Your task to perform on an android device: View the shopping cart on walmart. Search for apple airpods pro on walmart, select the first entry, and add it to the cart. Image 0: 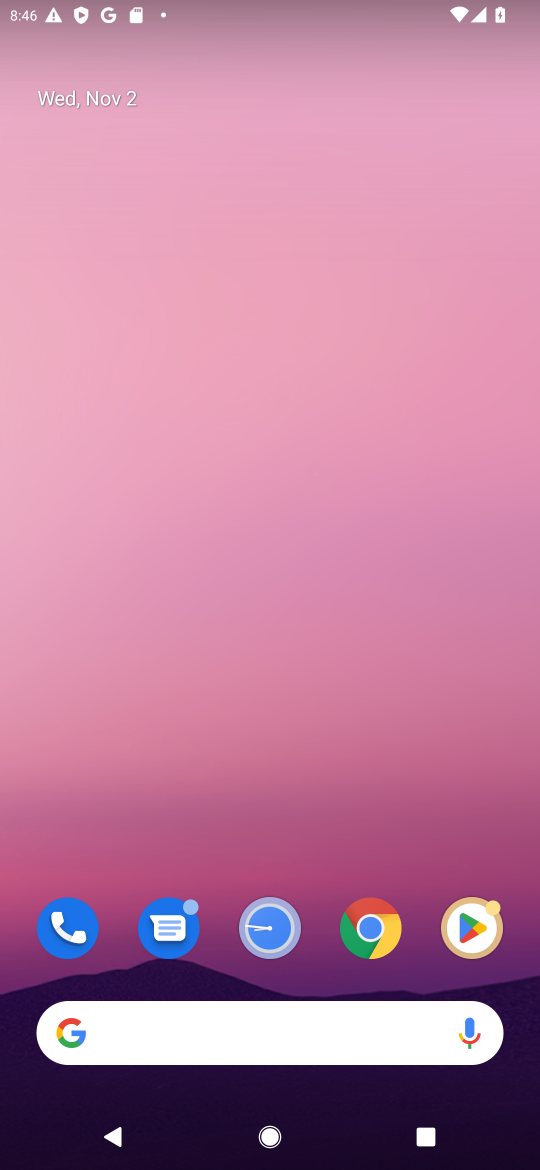
Step 0: click (375, 930)
Your task to perform on an android device: View the shopping cart on walmart. Search for apple airpods pro on walmart, select the first entry, and add it to the cart. Image 1: 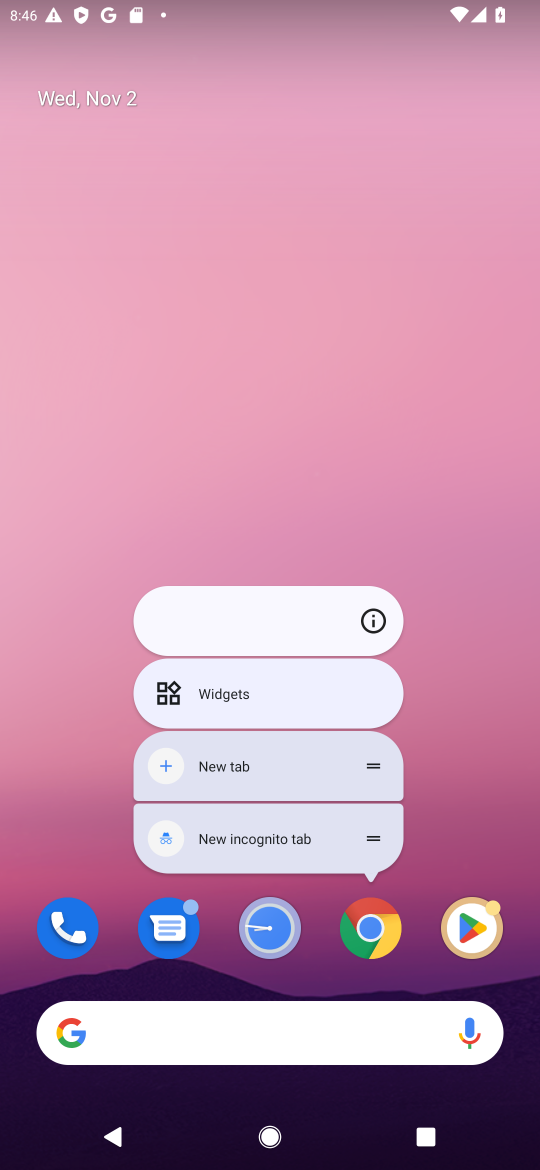
Step 1: click (375, 938)
Your task to perform on an android device: View the shopping cart on walmart. Search for apple airpods pro on walmart, select the first entry, and add it to the cart. Image 2: 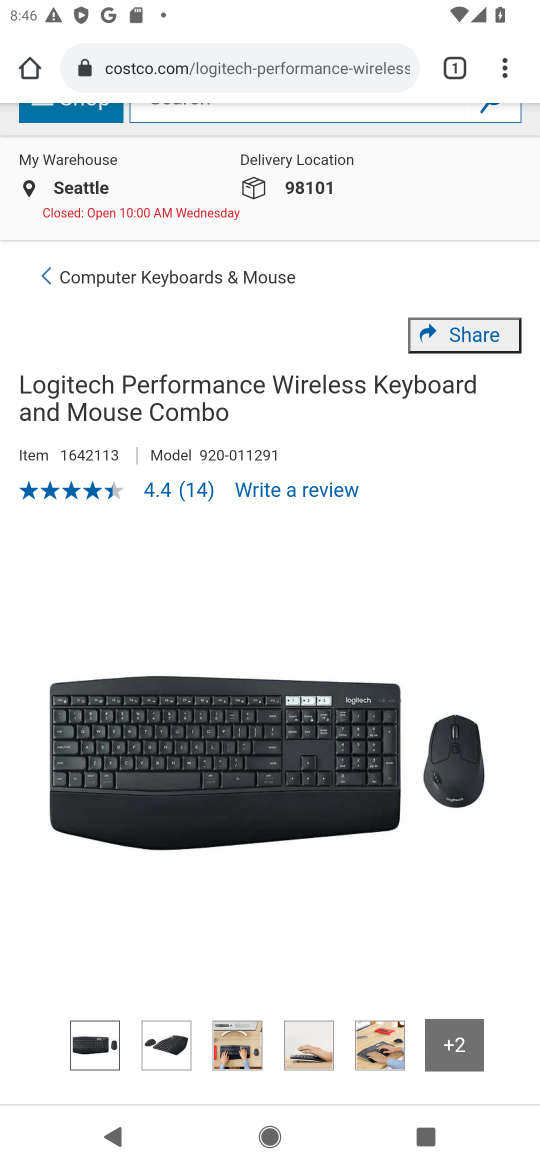
Step 2: click (245, 72)
Your task to perform on an android device: View the shopping cart on walmart. Search for apple airpods pro on walmart, select the first entry, and add it to the cart. Image 3: 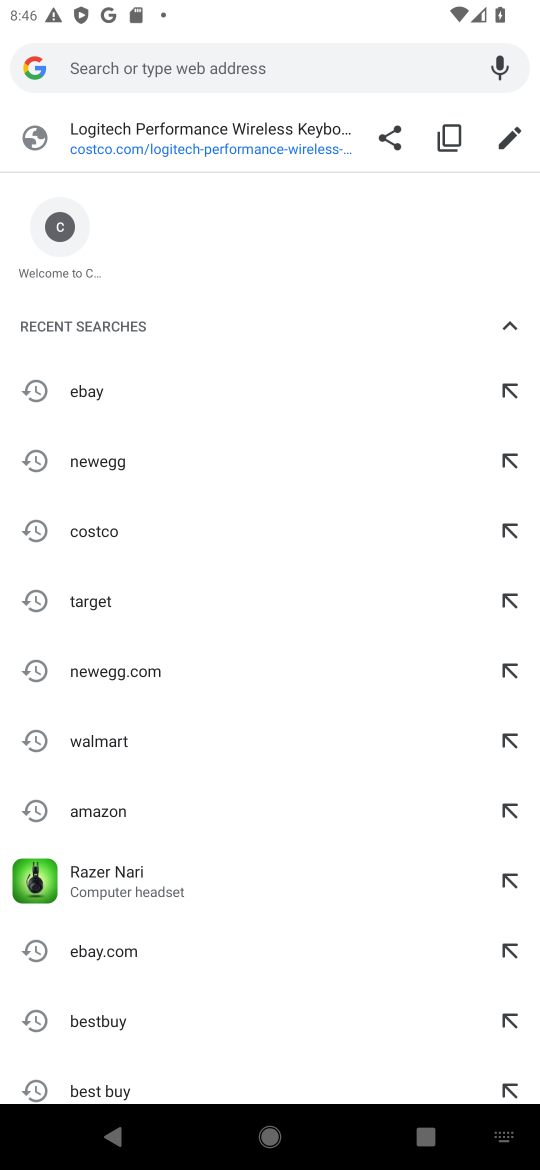
Step 3: type "walmart"
Your task to perform on an android device: View the shopping cart on walmart. Search for apple airpods pro on walmart, select the first entry, and add it to the cart. Image 4: 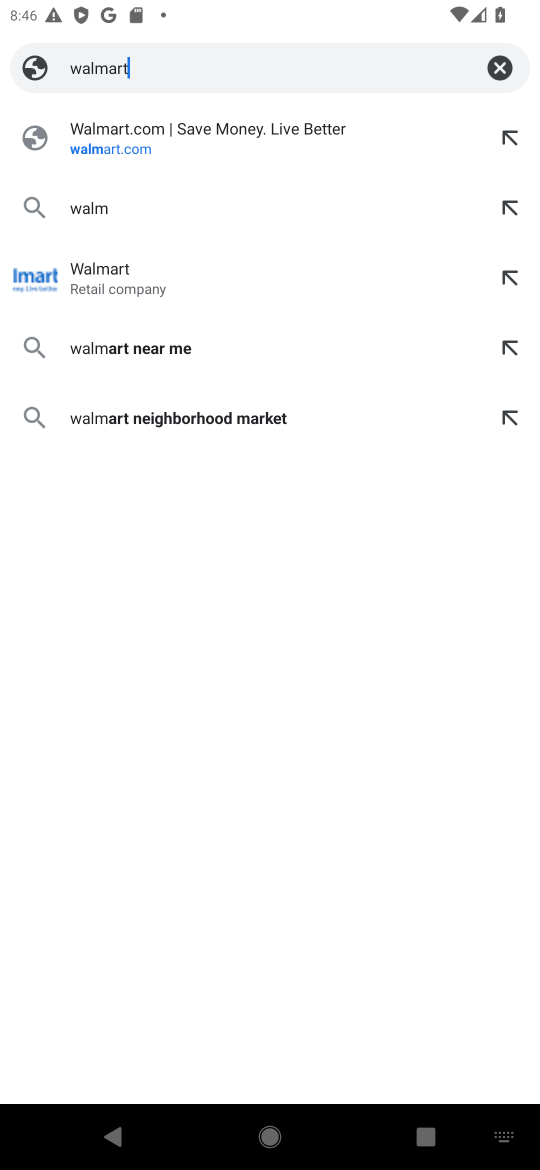
Step 4: type ""
Your task to perform on an android device: View the shopping cart on walmart. Search for apple airpods pro on walmart, select the first entry, and add it to the cart. Image 5: 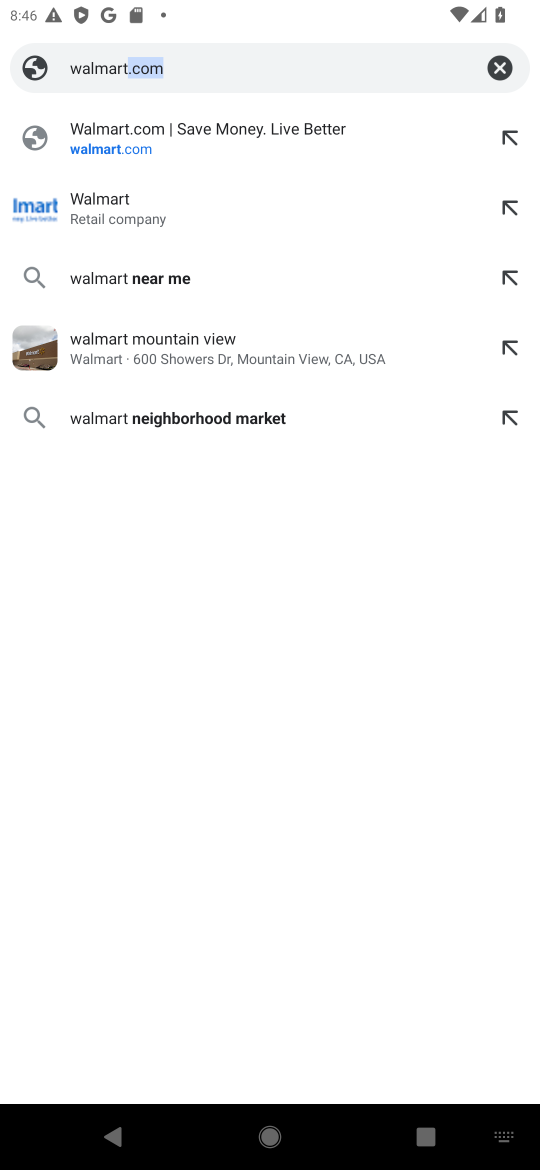
Step 5: click (167, 139)
Your task to perform on an android device: View the shopping cart on walmart. Search for apple airpods pro on walmart, select the first entry, and add it to the cart. Image 6: 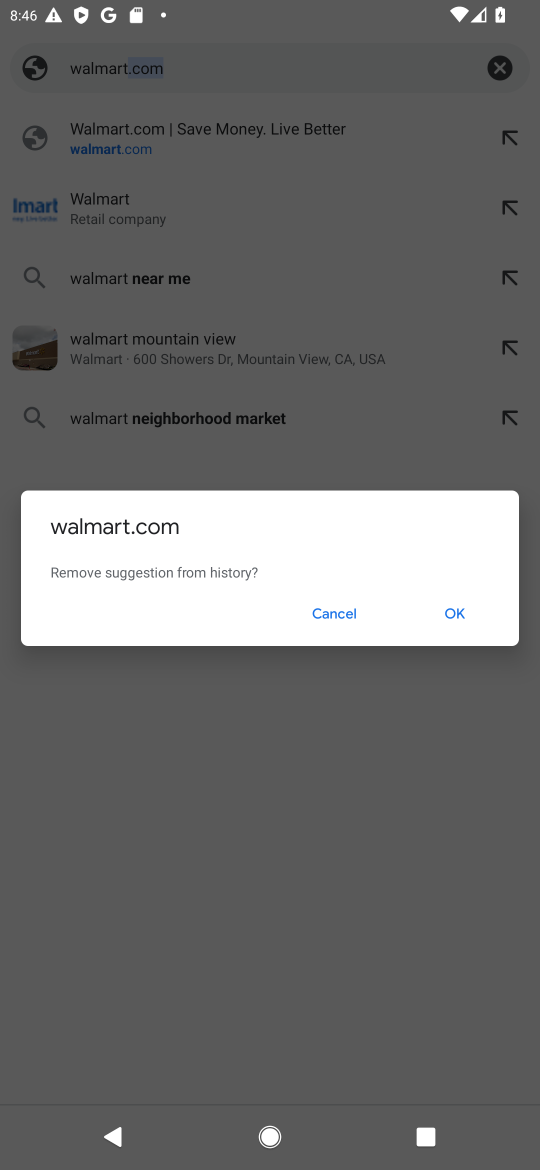
Step 6: click (465, 621)
Your task to perform on an android device: View the shopping cart on walmart. Search for apple airpods pro on walmart, select the first entry, and add it to the cart. Image 7: 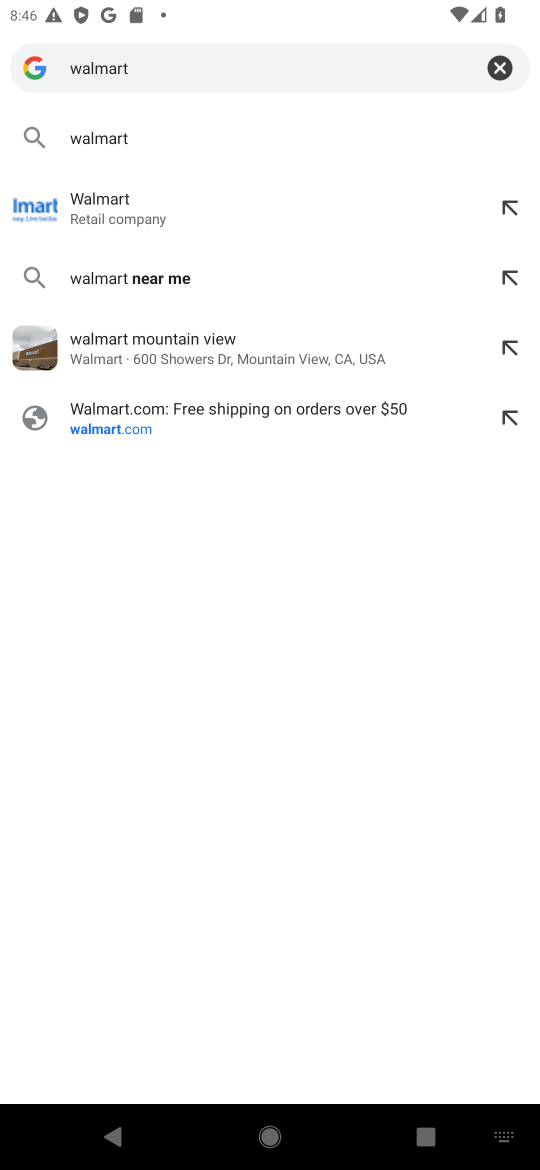
Step 7: click (139, 206)
Your task to perform on an android device: View the shopping cart on walmart. Search for apple airpods pro on walmart, select the first entry, and add it to the cart. Image 8: 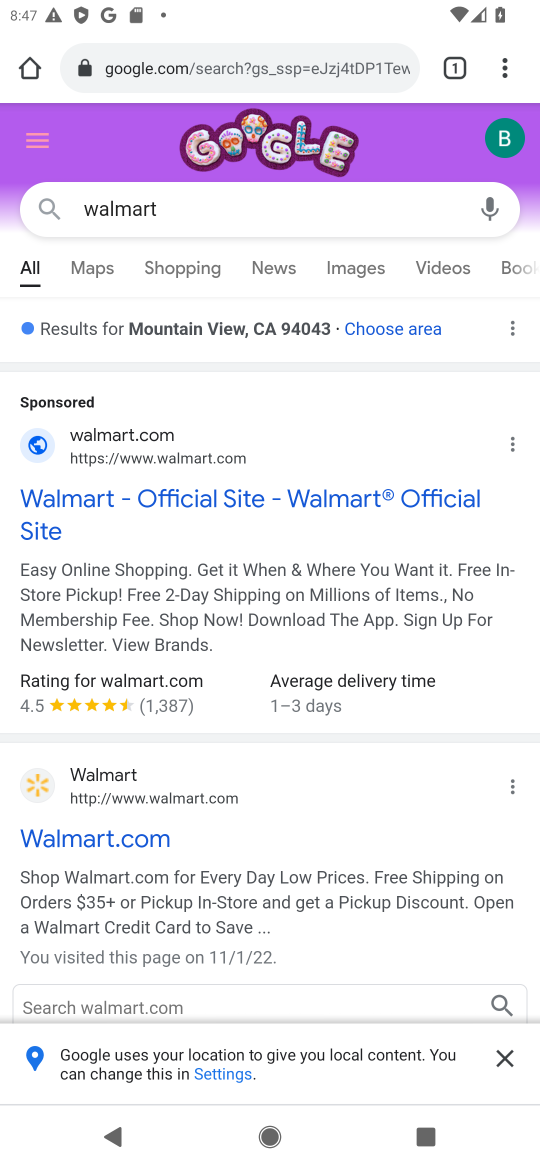
Step 8: click (160, 499)
Your task to perform on an android device: View the shopping cart on walmart. Search for apple airpods pro on walmart, select the first entry, and add it to the cart. Image 9: 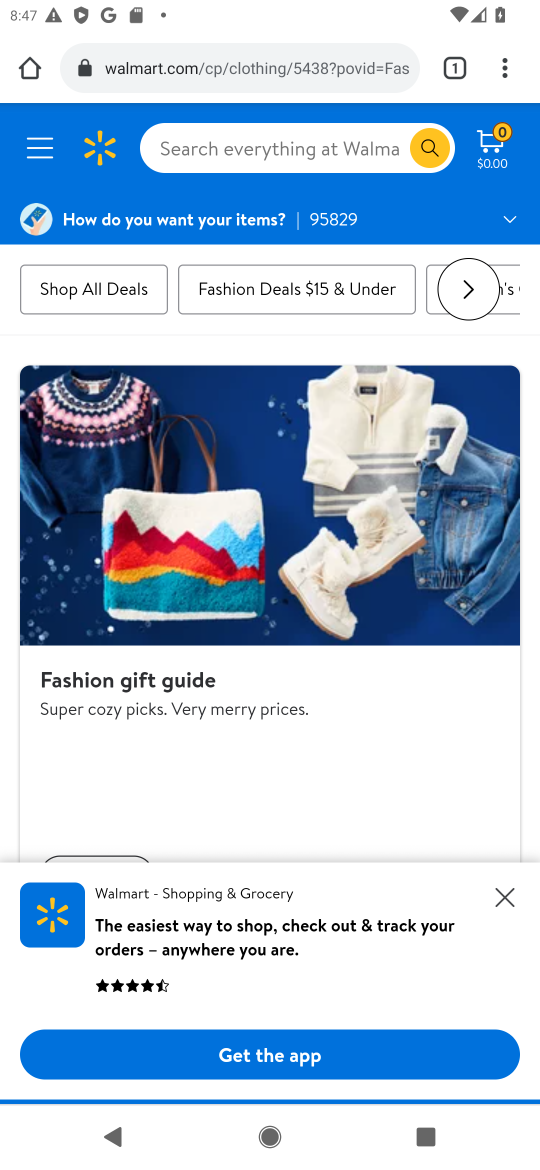
Step 9: click (261, 157)
Your task to perform on an android device: View the shopping cart on walmart. Search for apple airpods pro on walmart, select the first entry, and add it to the cart. Image 10: 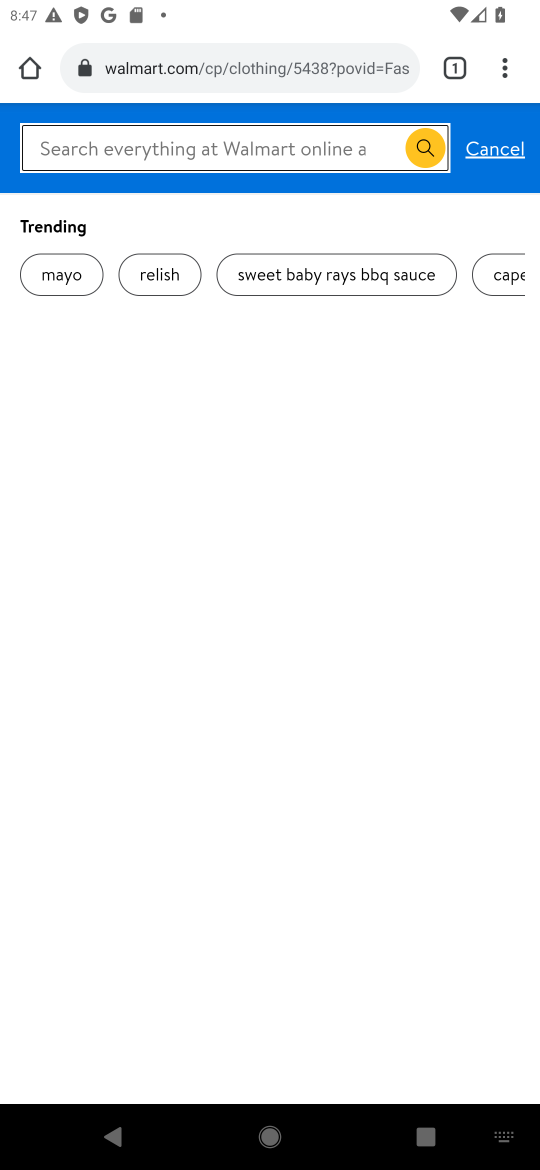
Step 10: type "apple airpods pro"
Your task to perform on an android device: View the shopping cart on walmart. Search for apple airpods pro on walmart, select the first entry, and add it to the cart. Image 11: 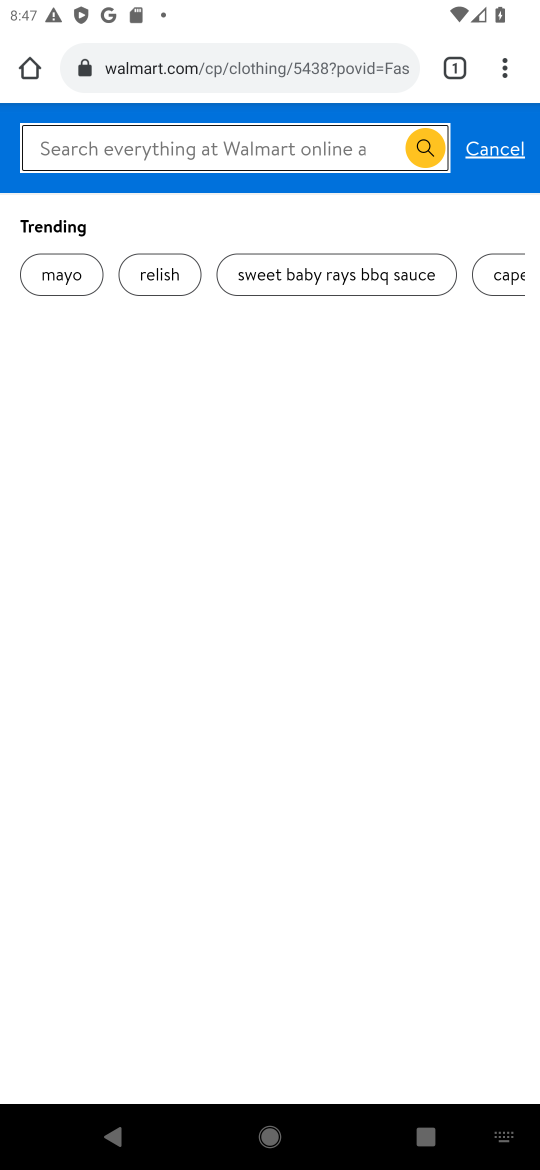
Step 11: type ""
Your task to perform on an android device: View the shopping cart on walmart. Search for apple airpods pro on walmart, select the first entry, and add it to the cart. Image 12: 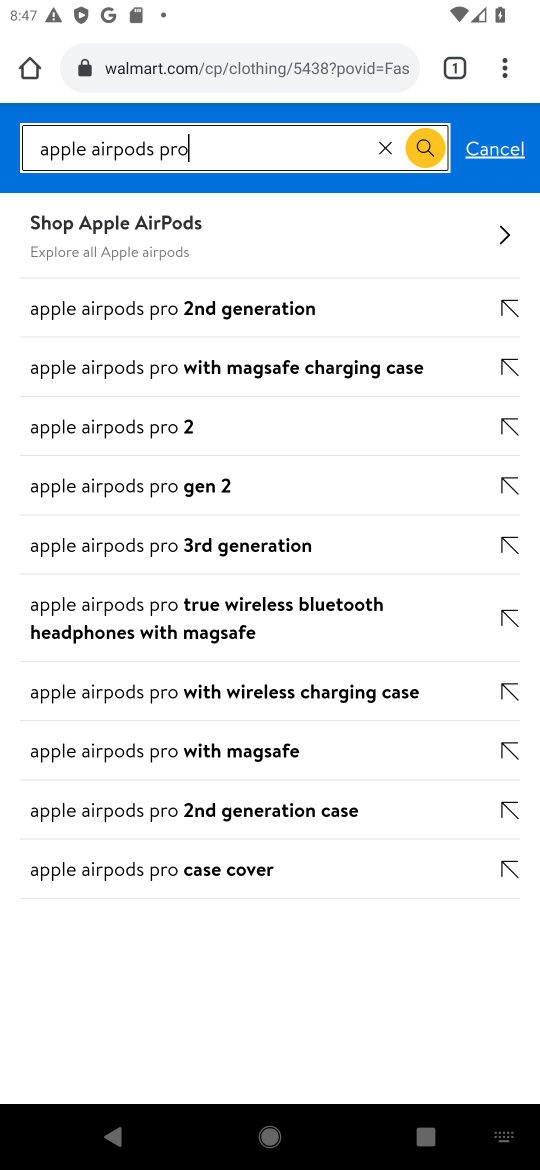
Step 12: click (97, 212)
Your task to perform on an android device: View the shopping cart on walmart. Search for apple airpods pro on walmart, select the first entry, and add it to the cart. Image 13: 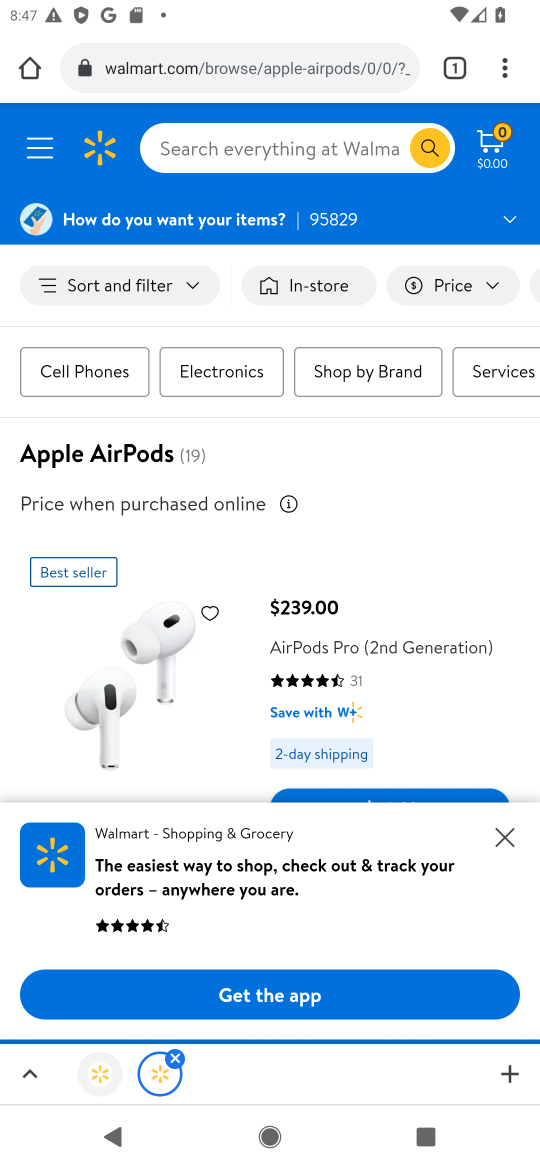
Step 13: click (514, 828)
Your task to perform on an android device: View the shopping cart on walmart. Search for apple airpods pro on walmart, select the first entry, and add it to the cart. Image 14: 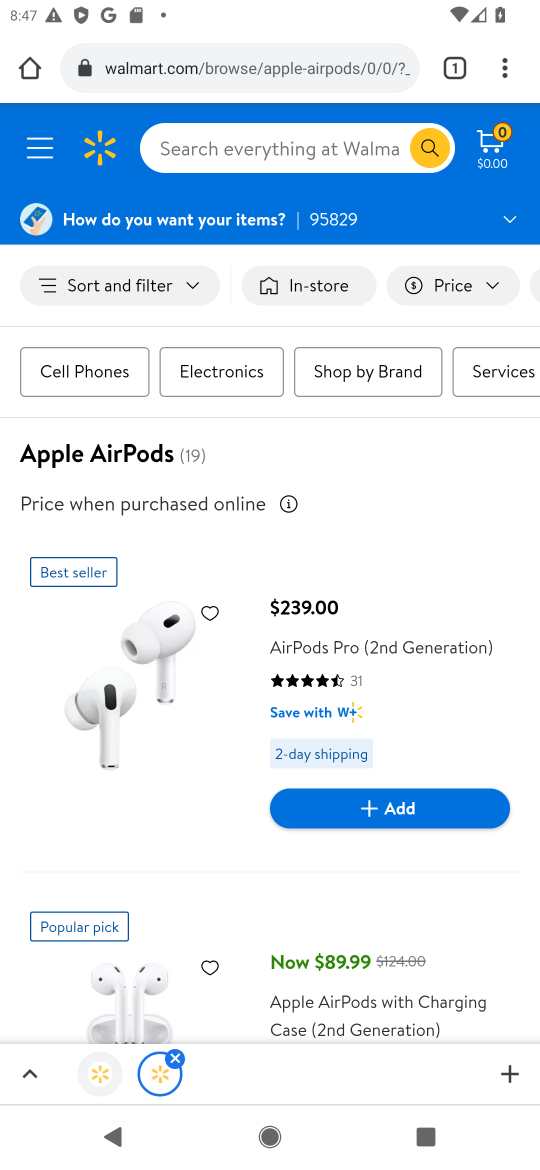
Step 14: click (454, 814)
Your task to perform on an android device: View the shopping cart on walmart. Search for apple airpods pro on walmart, select the first entry, and add it to the cart. Image 15: 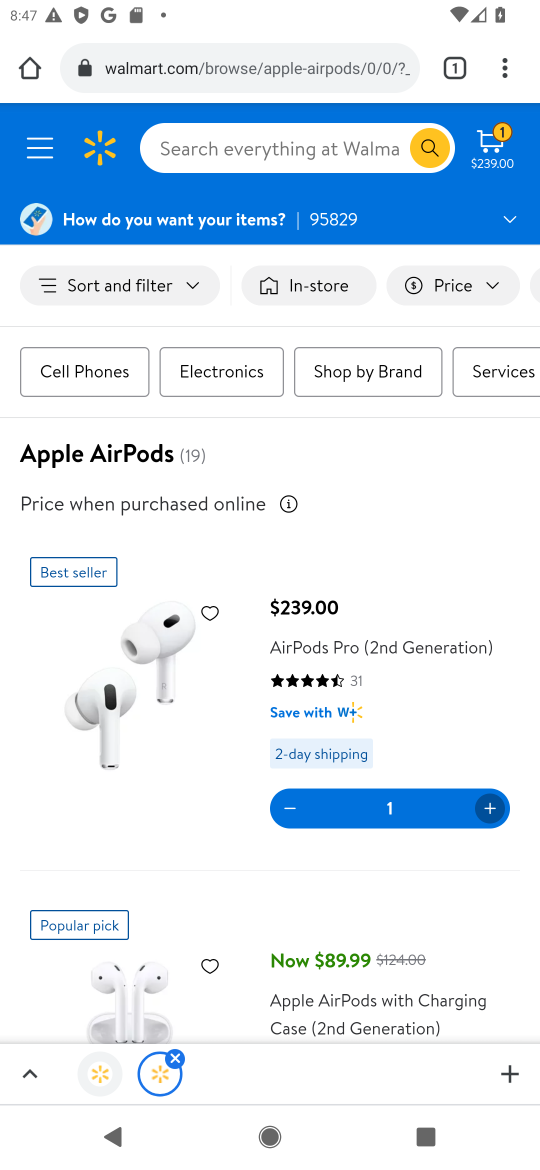
Step 15: click (501, 167)
Your task to perform on an android device: View the shopping cart on walmart. Search for apple airpods pro on walmart, select the first entry, and add it to the cart. Image 16: 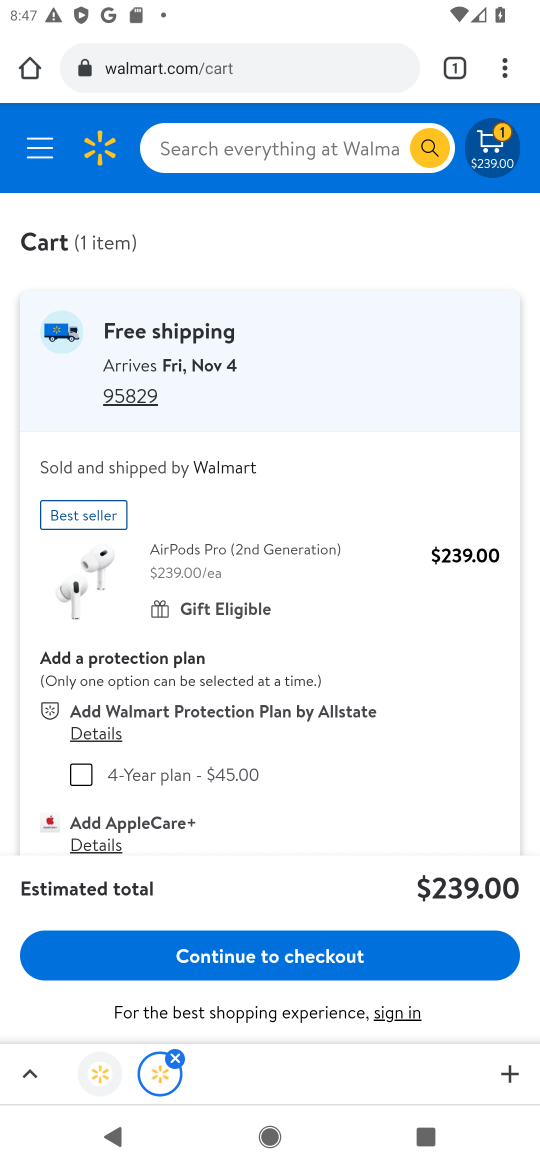
Step 16: drag from (371, 711) to (370, 392)
Your task to perform on an android device: View the shopping cart on walmart. Search for apple airpods pro on walmart, select the first entry, and add it to the cart. Image 17: 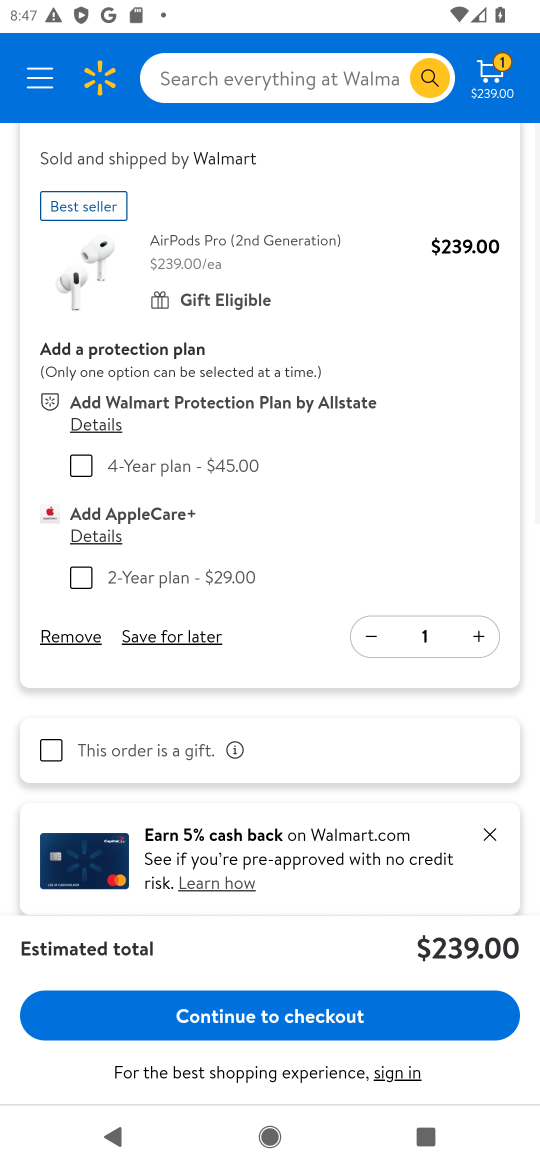
Step 17: click (323, 878)
Your task to perform on an android device: View the shopping cart on walmart. Search for apple airpods pro on walmart, select the first entry, and add it to the cart. Image 18: 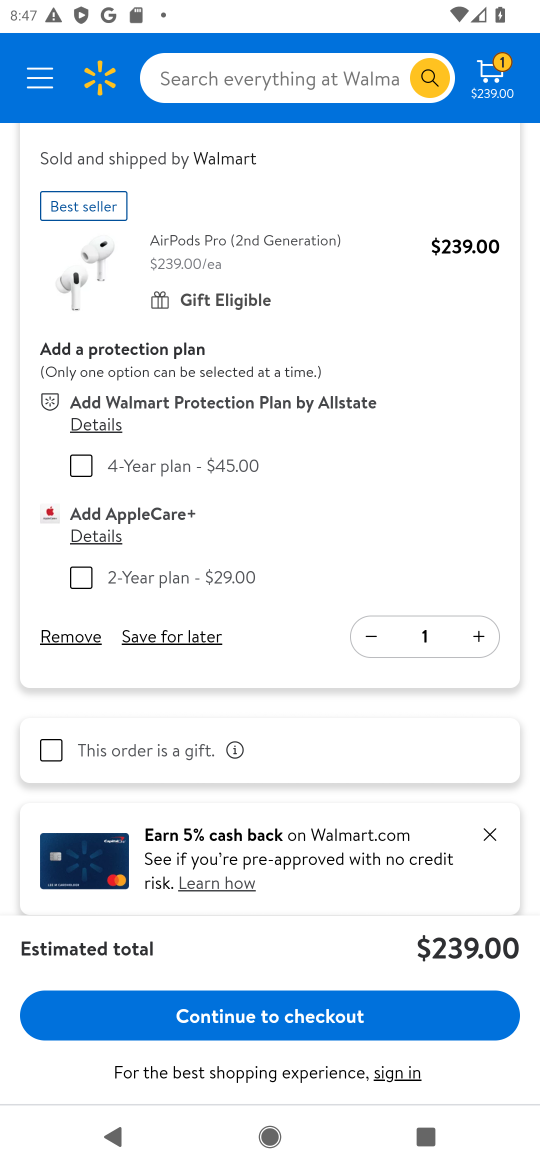
Step 18: click (489, 830)
Your task to perform on an android device: View the shopping cart on walmart. Search for apple airpods pro on walmart, select the first entry, and add it to the cart. Image 19: 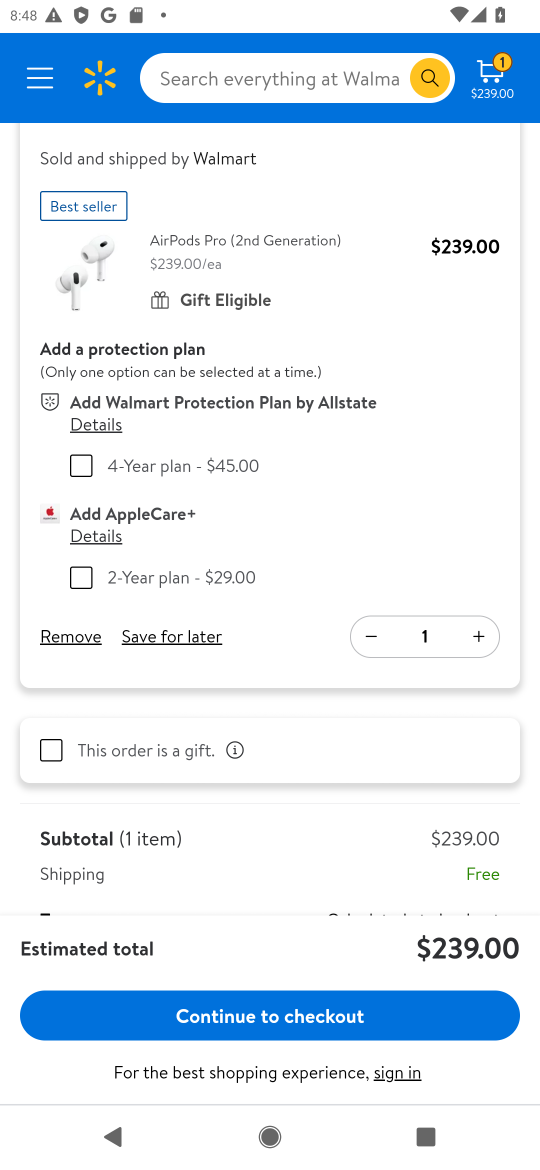
Step 19: click (270, 1017)
Your task to perform on an android device: View the shopping cart on walmart. Search for apple airpods pro on walmart, select the first entry, and add it to the cart. Image 20: 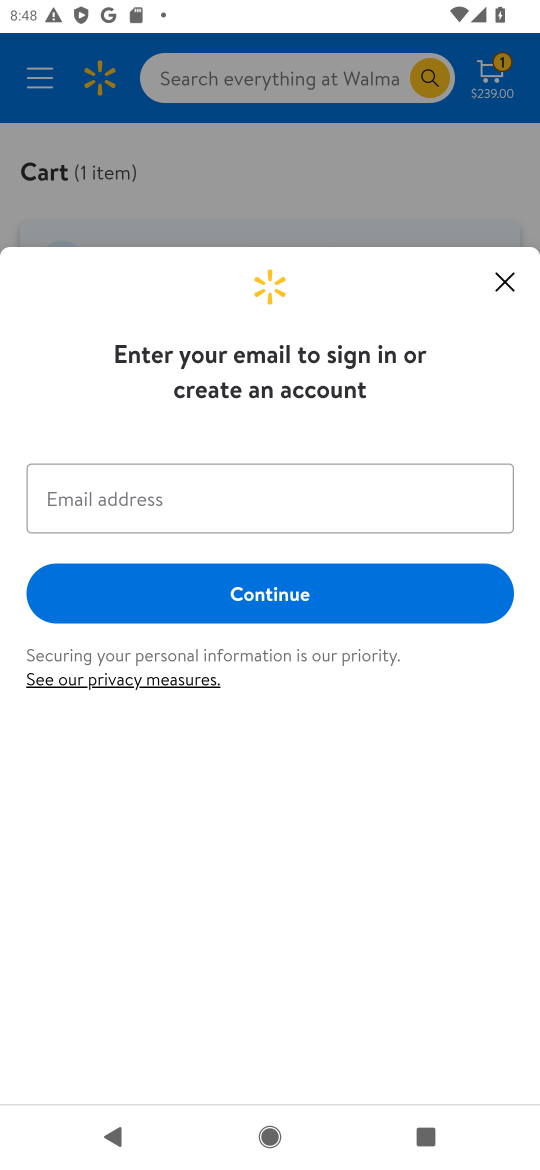
Step 20: click (499, 295)
Your task to perform on an android device: View the shopping cart on walmart. Search for apple airpods pro on walmart, select the first entry, and add it to the cart. Image 21: 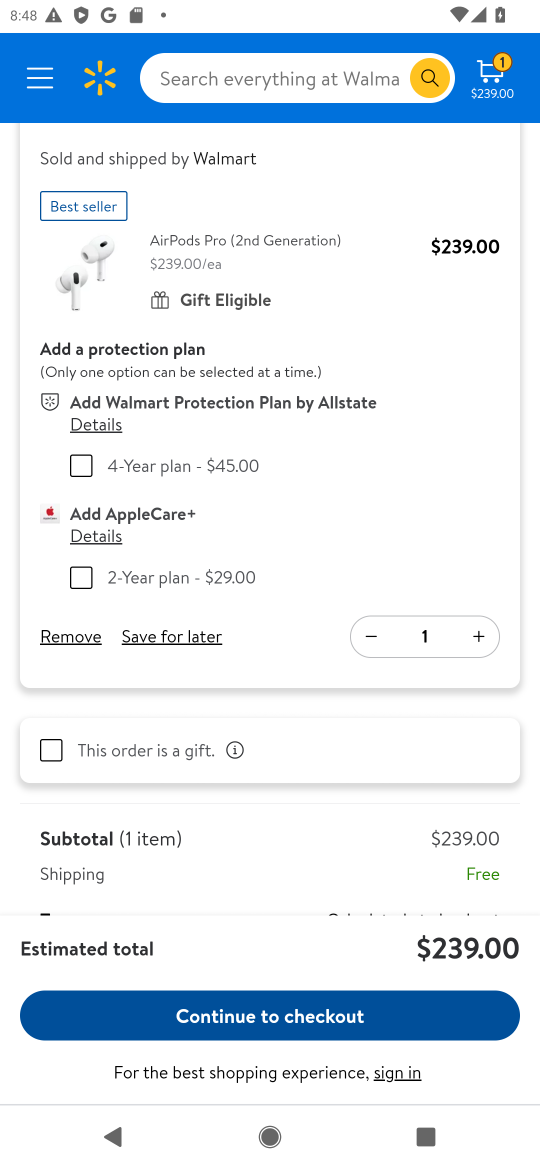
Step 21: click (290, 1031)
Your task to perform on an android device: View the shopping cart on walmart. Search for apple airpods pro on walmart, select the first entry, and add it to the cart. Image 22: 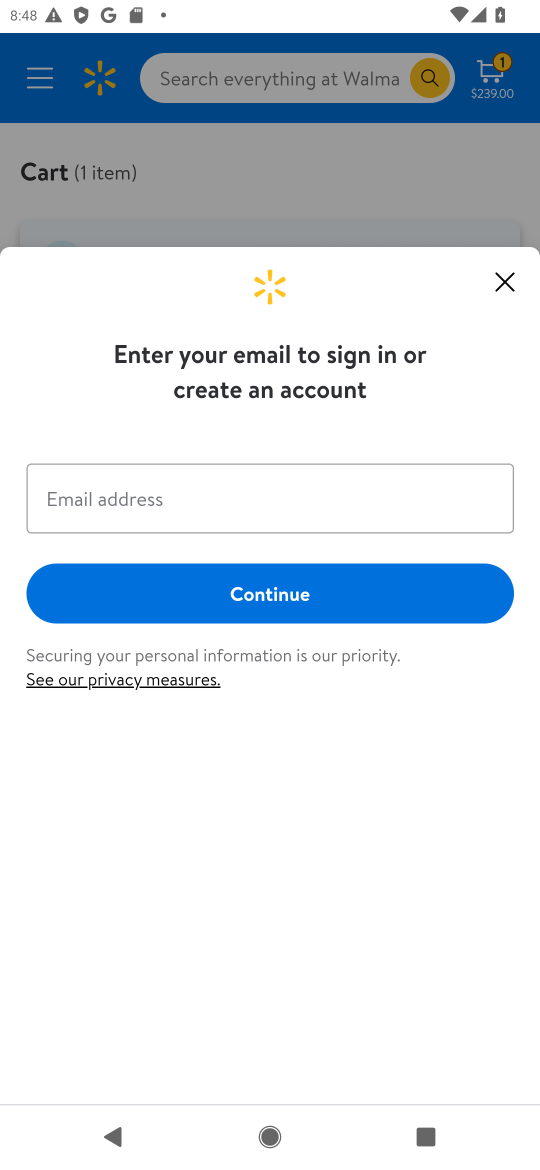
Step 22: click (485, 287)
Your task to perform on an android device: View the shopping cart on walmart. Search for apple airpods pro on walmart, select the first entry, and add it to the cart. Image 23: 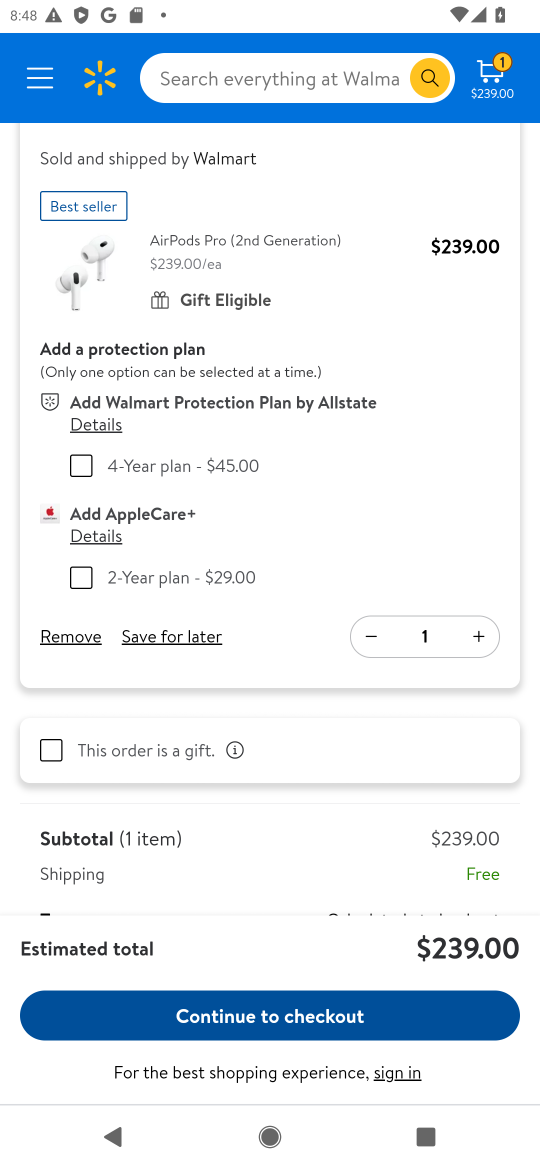
Step 23: drag from (307, 950) to (345, 337)
Your task to perform on an android device: View the shopping cart on walmart. Search for apple airpods pro on walmart, select the first entry, and add it to the cart. Image 24: 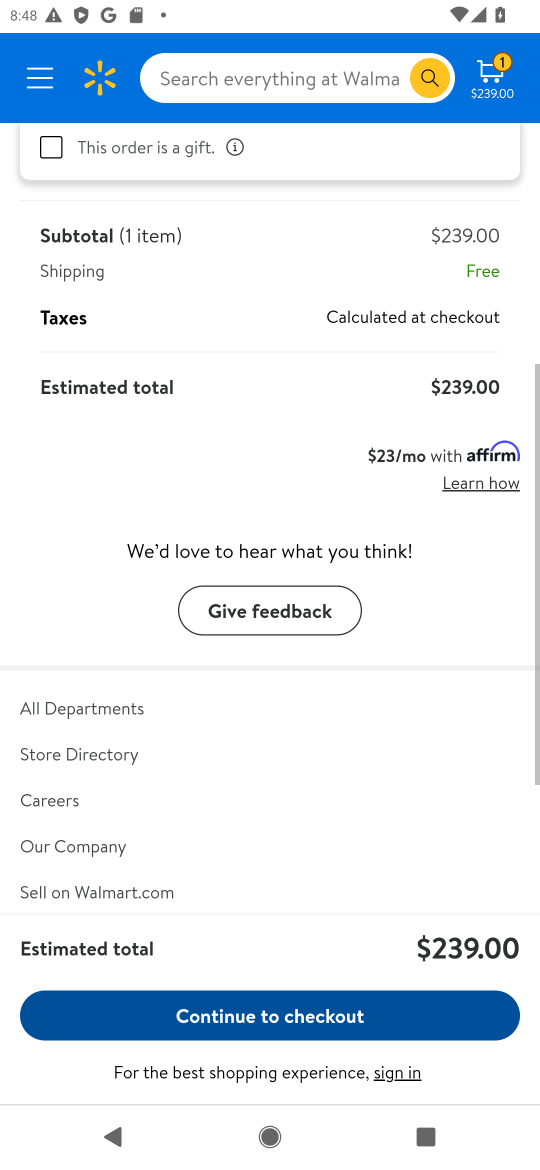
Step 24: click (238, 1007)
Your task to perform on an android device: View the shopping cart on walmart. Search for apple airpods pro on walmart, select the first entry, and add it to the cart. Image 25: 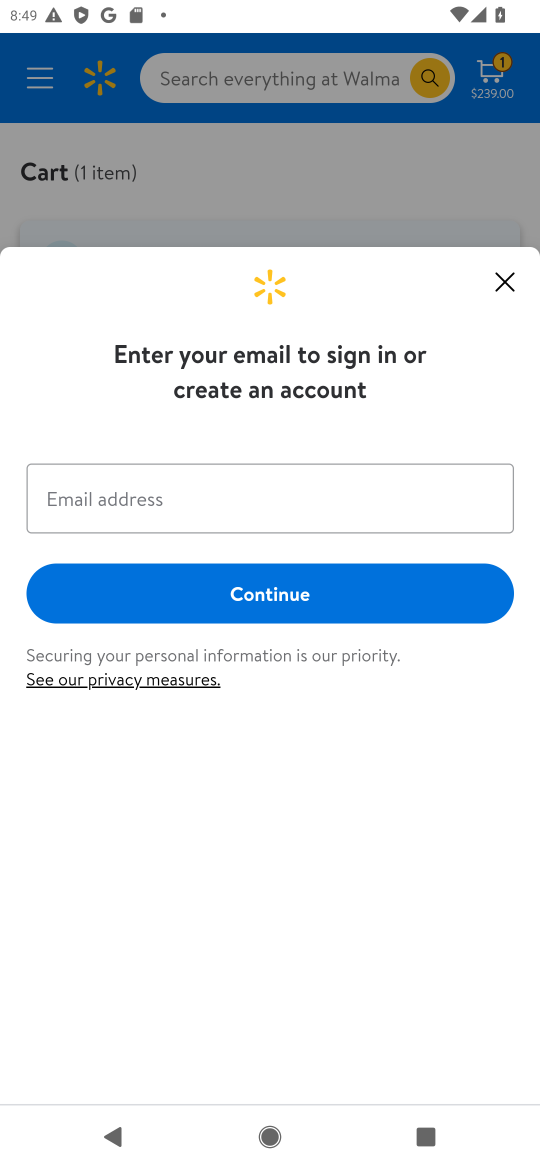
Step 25: click (496, 274)
Your task to perform on an android device: View the shopping cart on walmart. Search for apple airpods pro on walmart, select the first entry, and add it to the cart. Image 26: 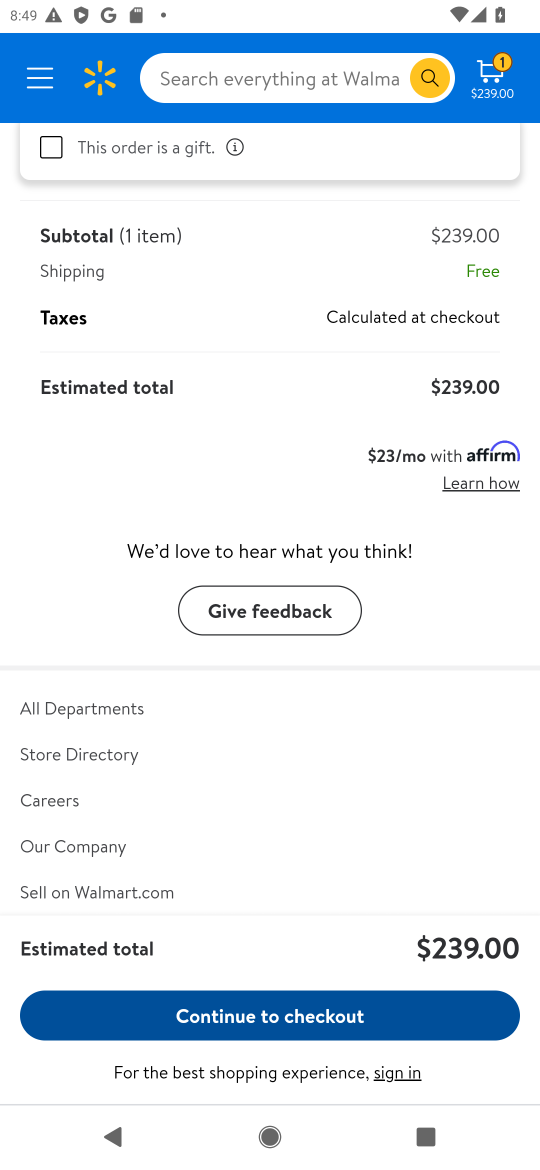
Step 26: drag from (327, 694) to (399, 218)
Your task to perform on an android device: View the shopping cart on walmart. Search for apple airpods pro on walmart, select the first entry, and add it to the cart. Image 27: 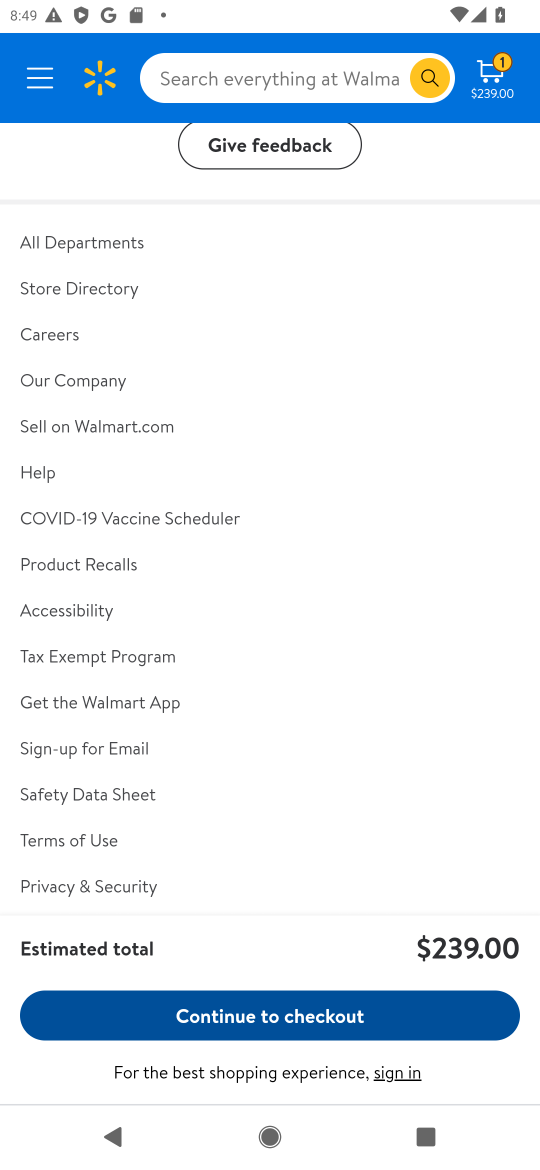
Step 27: drag from (327, 625) to (365, 256)
Your task to perform on an android device: View the shopping cart on walmart. Search for apple airpods pro on walmart, select the first entry, and add it to the cart. Image 28: 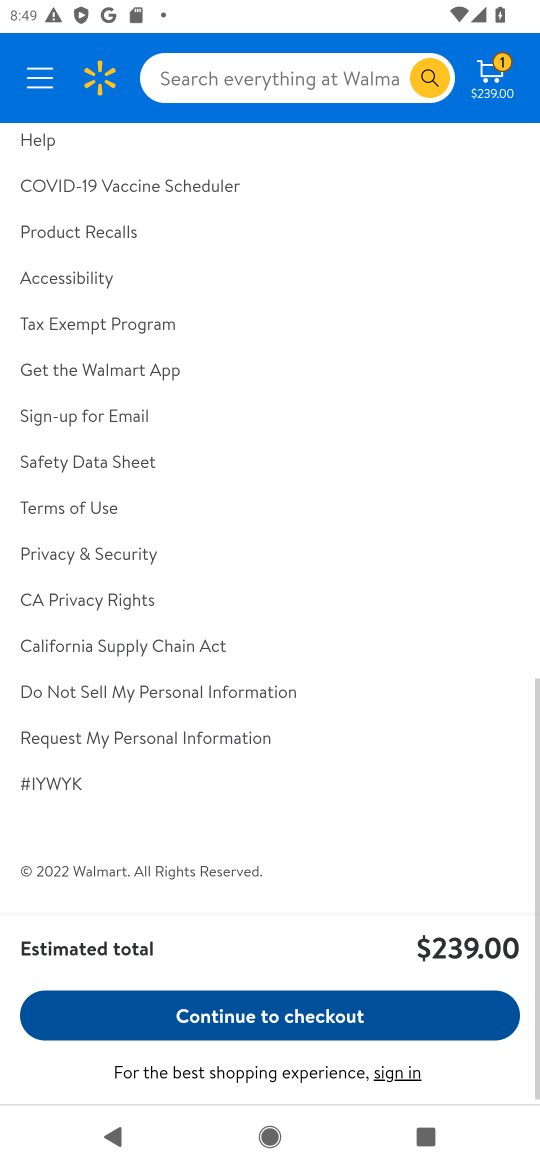
Step 28: click (265, 998)
Your task to perform on an android device: View the shopping cart on walmart. Search for apple airpods pro on walmart, select the first entry, and add it to the cart. Image 29: 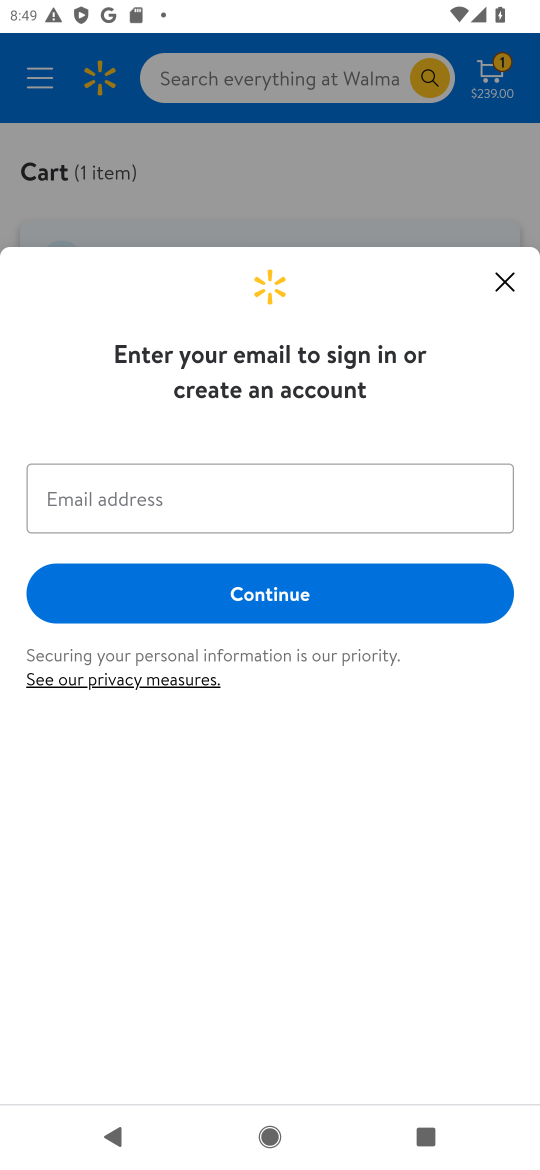
Step 29: click (510, 279)
Your task to perform on an android device: View the shopping cart on walmart. Search for apple airpods pro on walmart, select the first entry, and add it to the cart. Image 30: 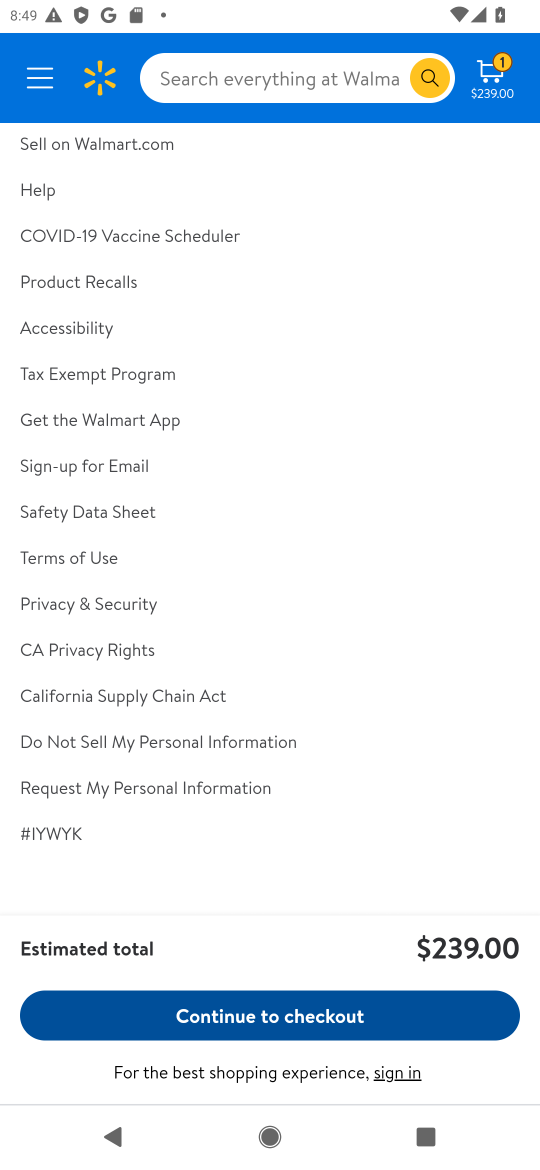
Step 30: drag from (477, 431) to (455, 845)
Your task to perform on an android device: View the shopping cart on walmart. Search for apple airpods pro on walmart, select the first entry, and add it to the cart. Image 31: 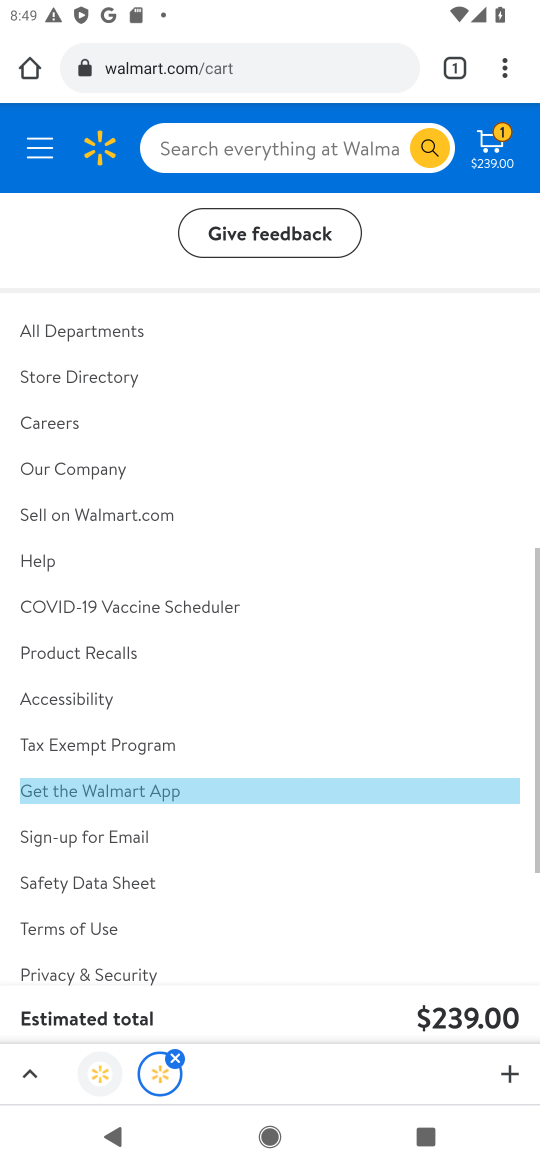
Step 31: drag from (381, 528) to (346, 845)
Your task to perform on an android device: View the shopping cart on walmart. Search for apple airpods pro on walmart, select the first entry, and add it to the cart. Image 32: 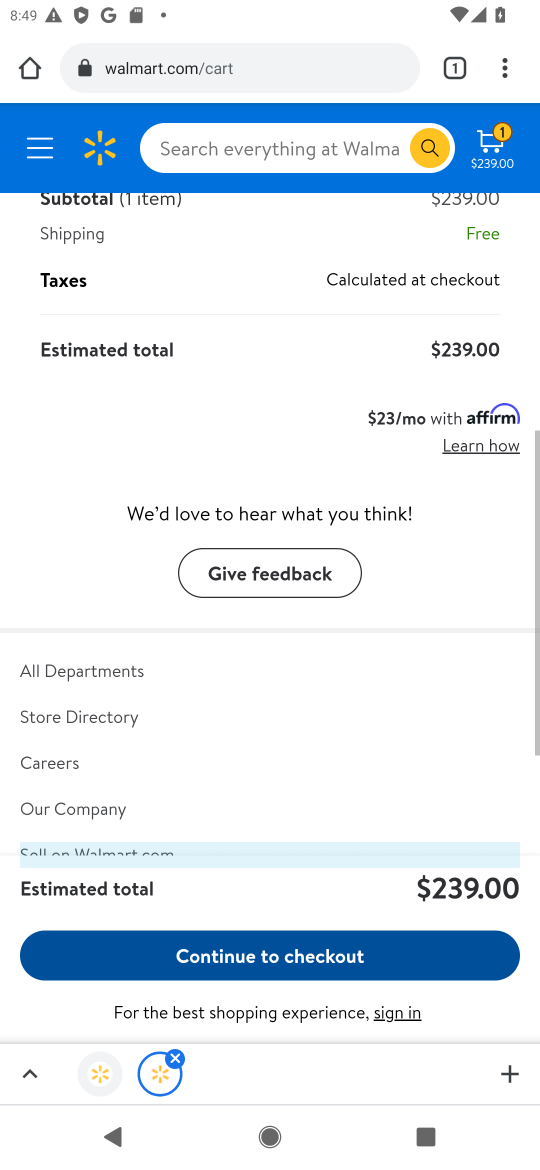
Step 32: drag from (347, 400) to (333, 833)
Your task to perform on an android device: View the shopping cart on walmart. Search for apple airpods pro on walmart, select the first entry, and add it to the cart. Image 33: 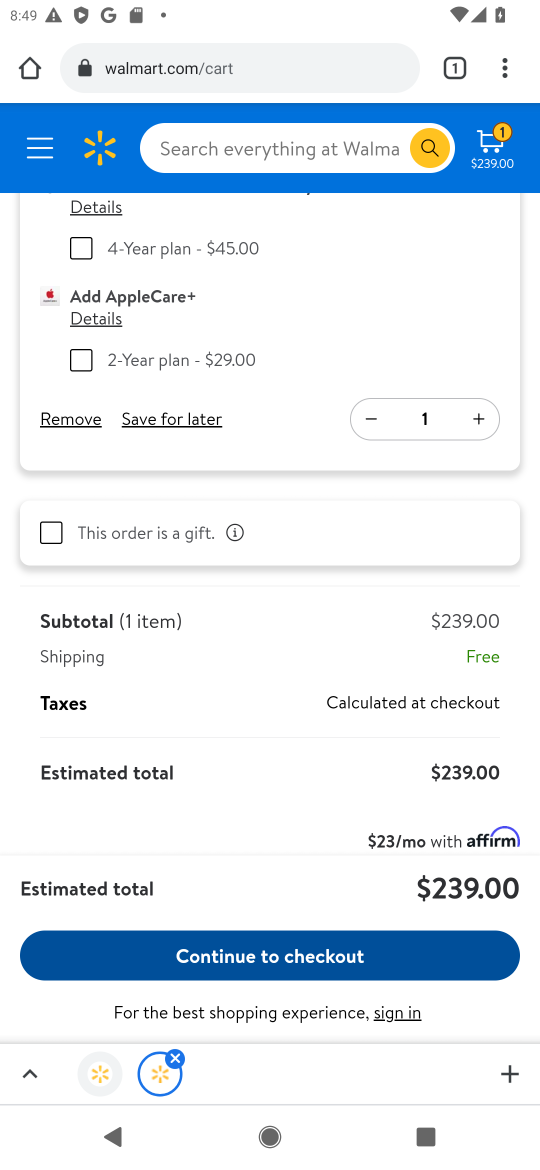
Step 33: drag from (450, 335) to (456, 965)
Your task to perform on an android device: View the shopping cart on walmart. Search for apple airpods pro on walmart, select the first entry, and add it to the cart. Image 34: 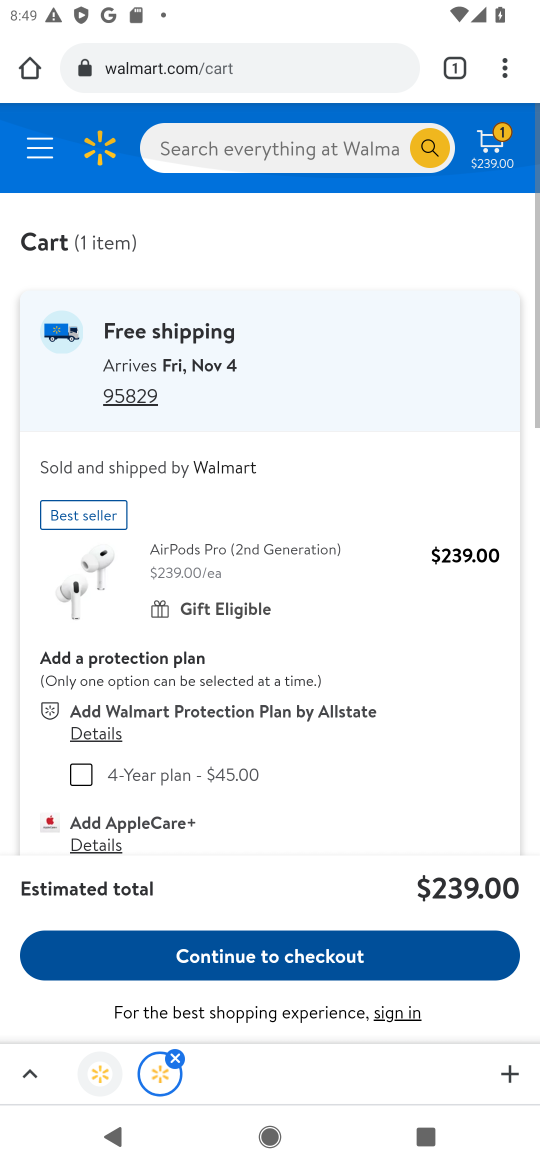
Step 34: drag from (330, 384) to (334, 910)
Your task to perform on an android device: View the shopping cart on walmart. Search for apple airpods pro on walmart, select the first entry, and add it to the cart. Image 35: 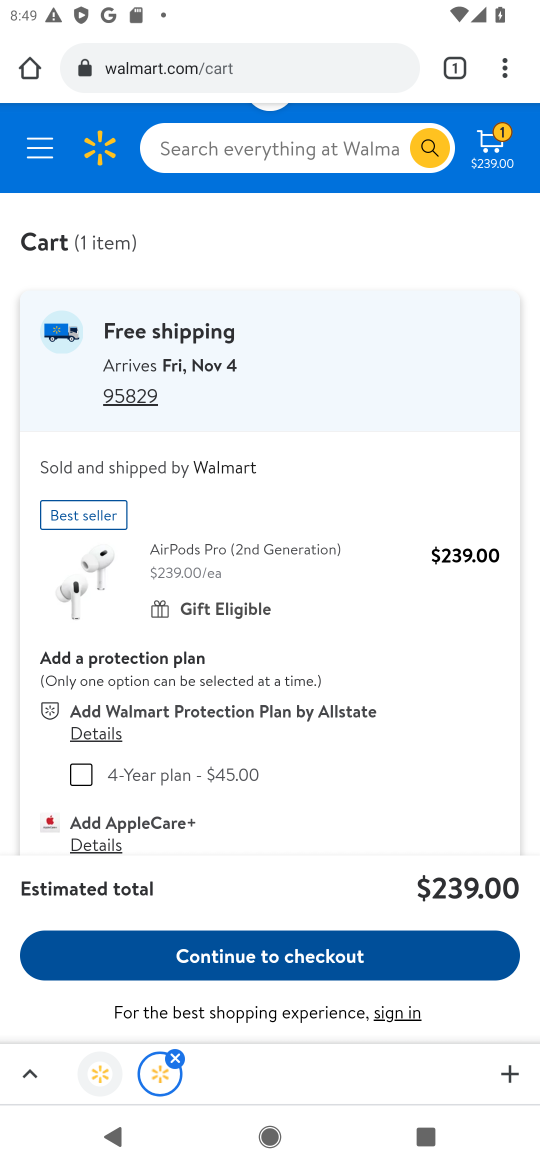
Step 35: drag from (340, 402) to (336, 869)
Your task to perform on an android device: View the shopping cart on walmart. Search for apple airpods pro on walmart, select the first entry, and add it to the cart. Image 36: 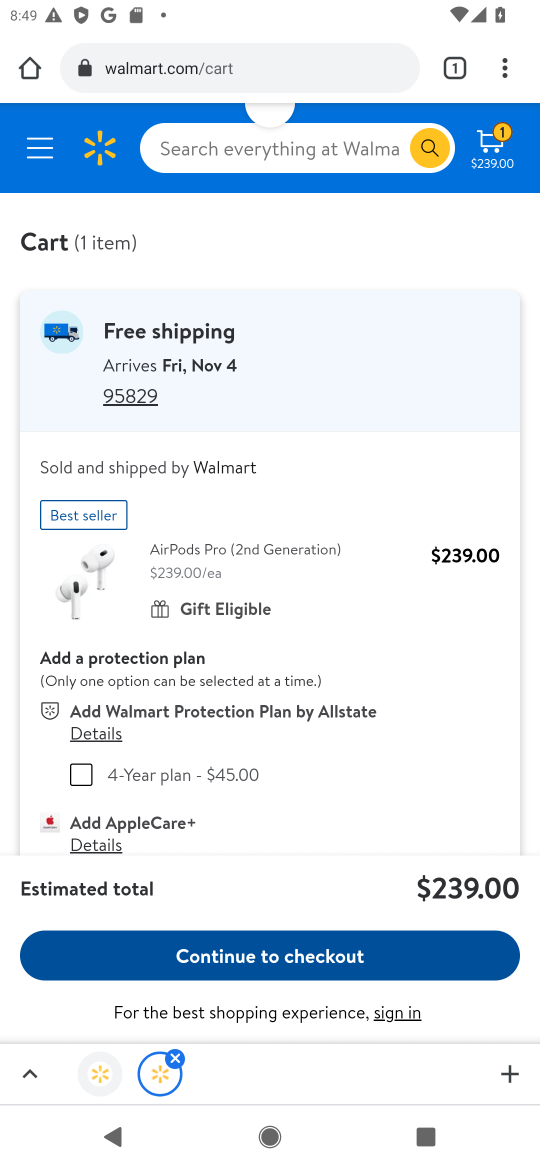
Step 36: drag from (410, 510) to (374, 758)
Your task to perform on an android device: View the shopping cart on walmart. Search for apple airpods pro on walmart, select the first entry, and add it to the cart. Image 37: 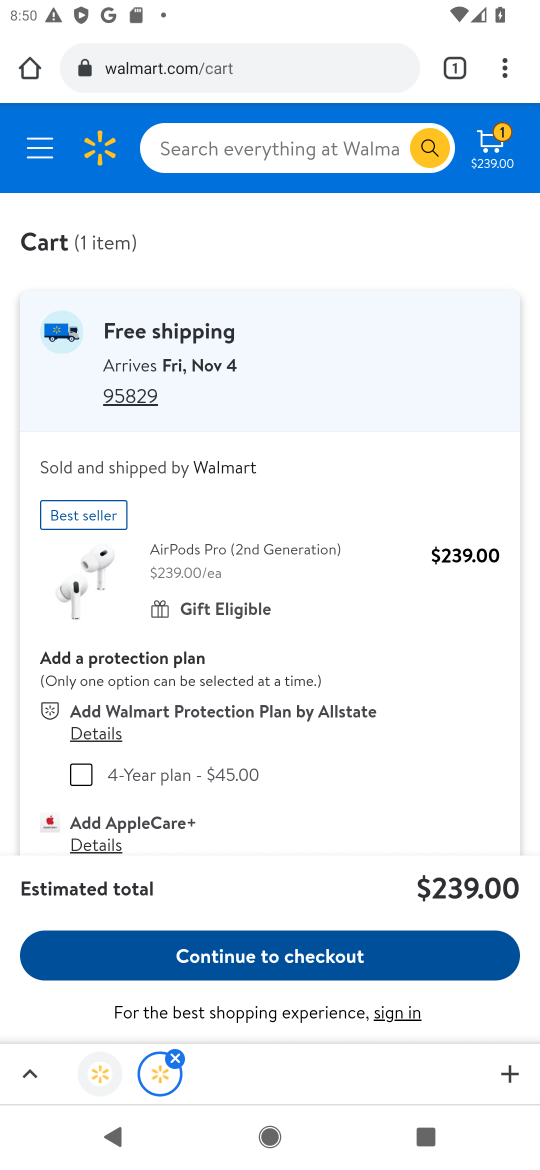
Step 37: drag from (346, 873) to (357, 571)
Your task to perform on an android device: View the shopping cart on walmart. Search for apple airpods pro on walmart, select the first entry, and add it to the cart. Image 38: 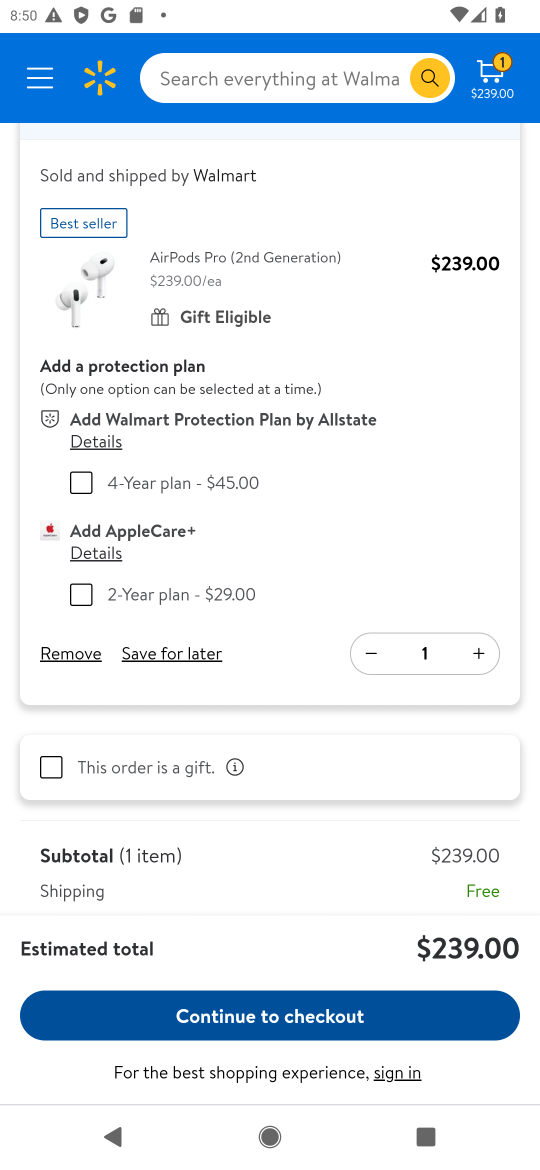
Step 38: click (300, 889)
Your task to perform on an android device: View the shopping cart on walmart. Search for apple airpods pro on walmart, select the first entry, and add it to the cart. Image 39: 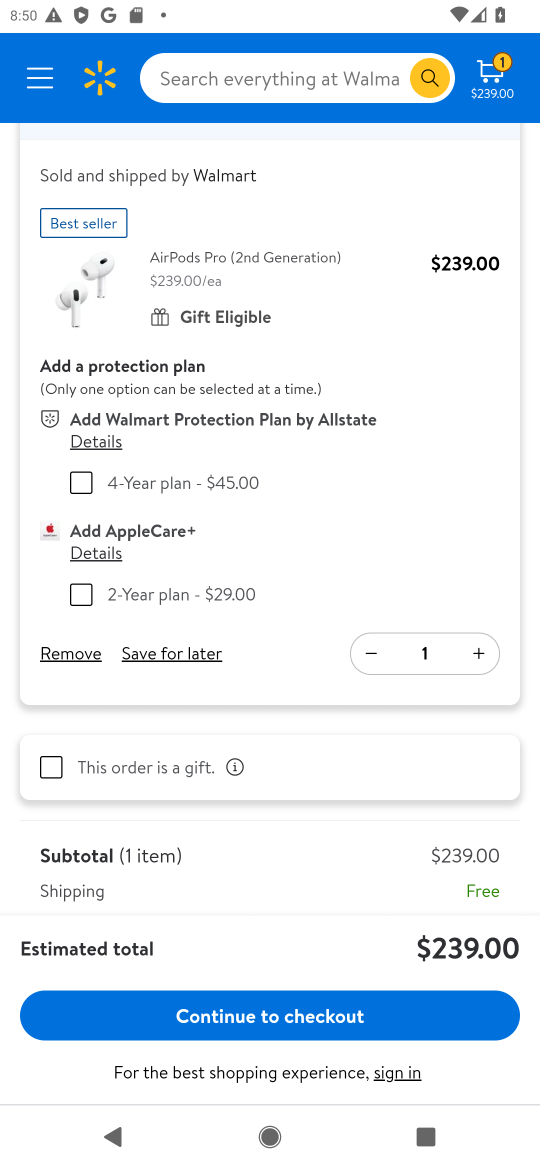
Step 39: click (286, 1012)
Your task to perform on an android device: View the shopping cart on walmart. Search for apple airpods pro on walmart, select the first entry, and add it to the cart. Image 40: 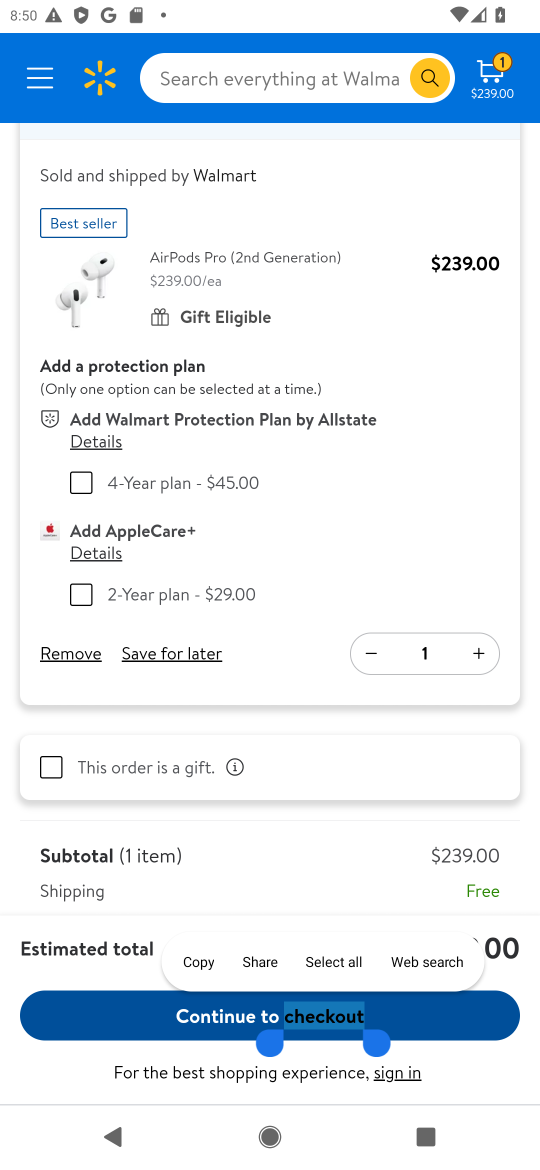
Step 40: click (286, 1012)
Your task to perform on an android device: View the shopping cart on walmart. Search for apple airpods pro on walmart, select the first entry, and add it to the cart. Image 41: 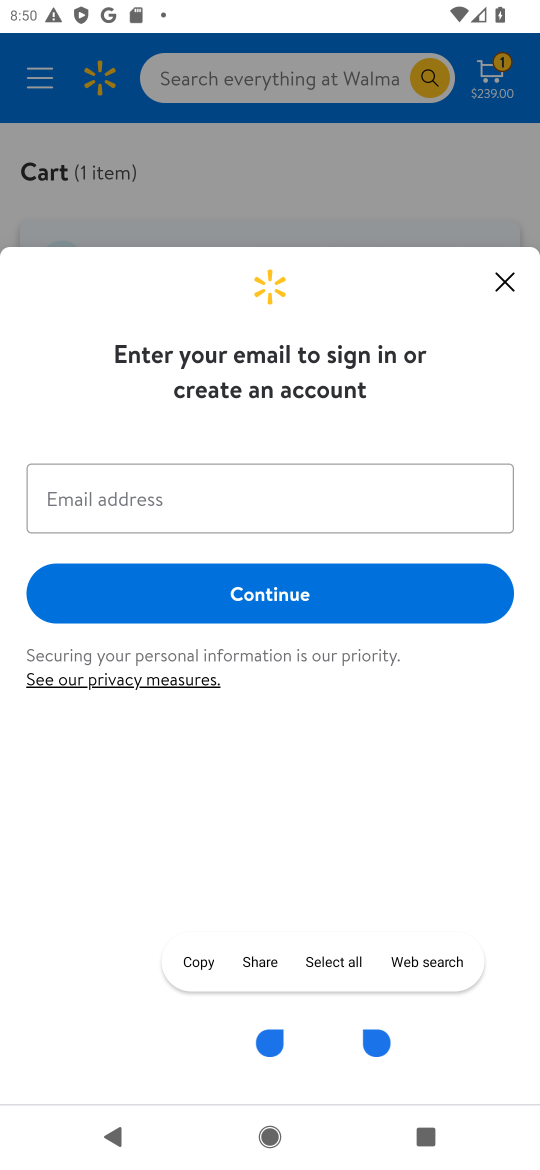
Step 41: click (509, 270)
Your task to perform on an android device: View the shopping cart on walmart. Search for apple airpods pro on walmart, select the first entry, and add it to the cart. Image 42: 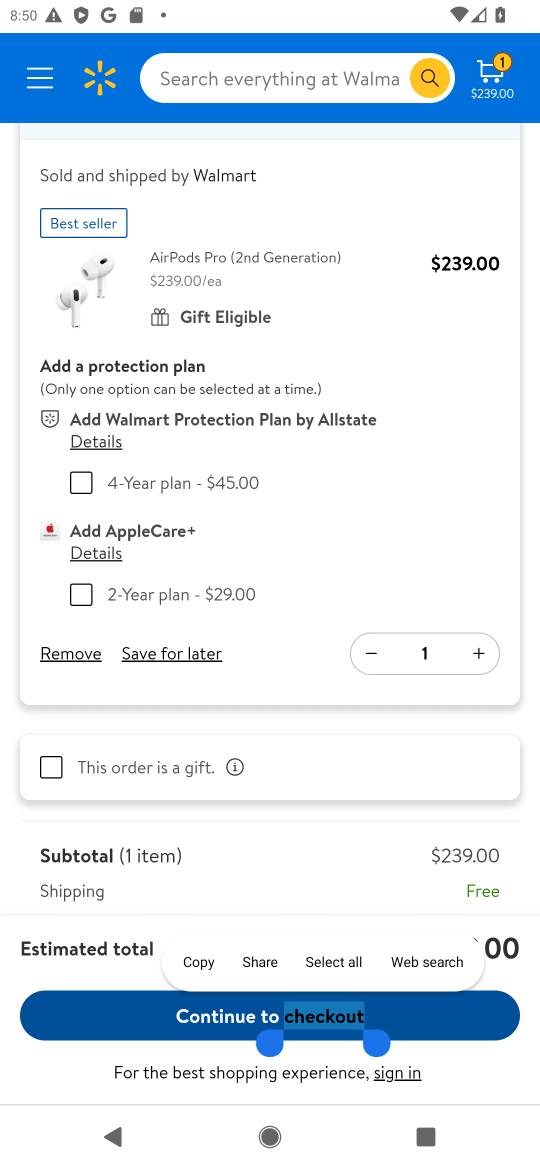
Step 42: click (366, 866)
Your task to perform on an android device: View the shopping cart on walmart. Search for apple airpods pro on walmart, select the first entry, and add it to the cart. Image 43: 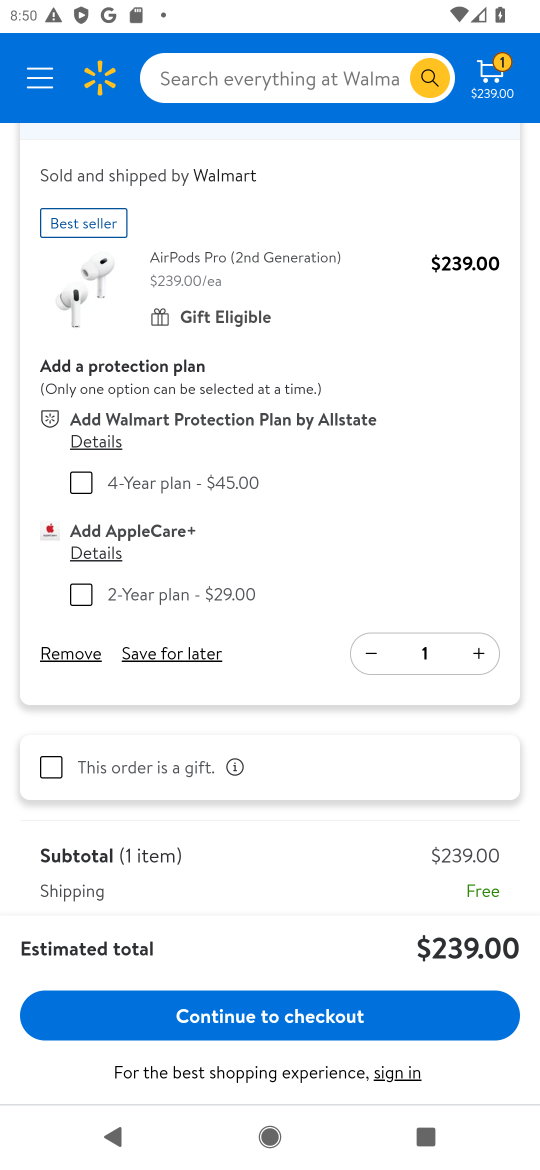
Step 43: click (311, 1012)
Your task to perform on an android device: View the shopping cart on walmart. Search for apple airpods pro on walmart, select the first entry, and add it to the cart. Image 44: 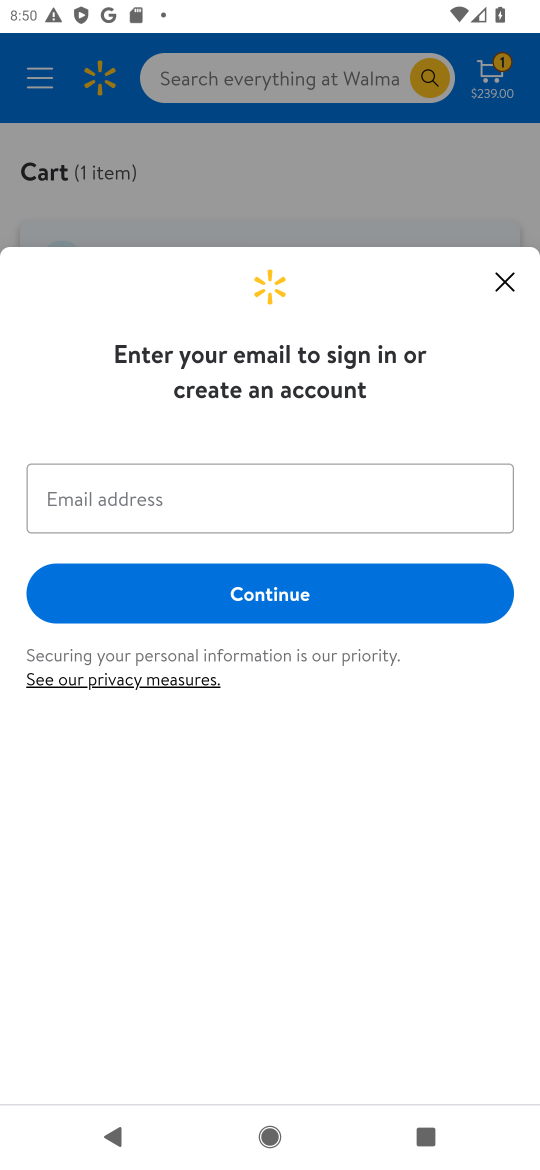
Step 44: click (507, 293)
Your task to perform on an android device: View the shopping cart on walmart. Search for apple airpods pro on walmart, select the first entry, and add it to the cart. Image 45: 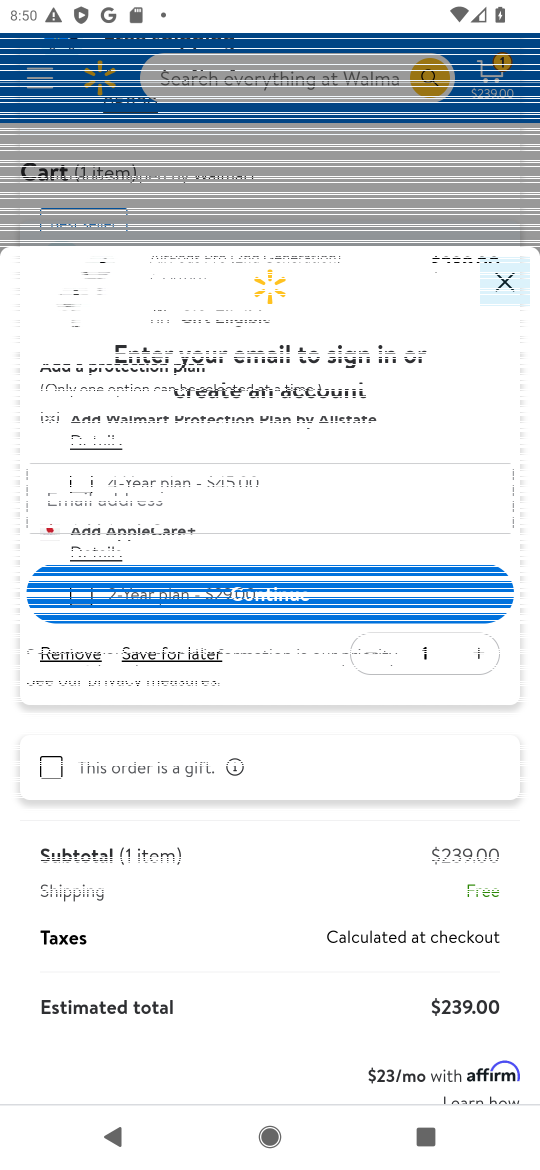
Step 45: task complete